Your task to perform on an android device: When is my next appointment? Image 0: 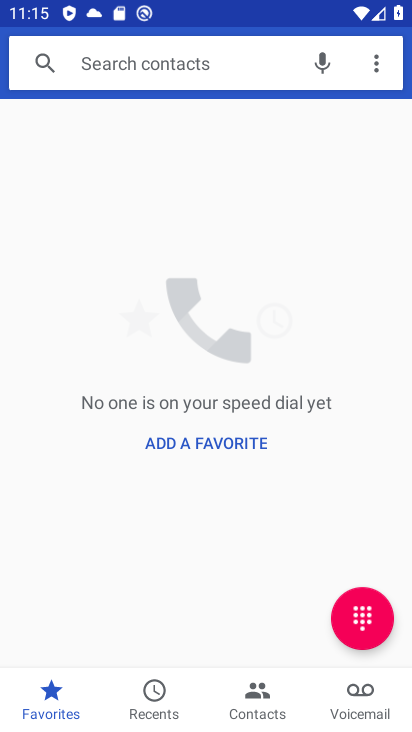
Step 0: drag from (217, 564) to (174, 68)
Your task to perform on an android device: When is my next appointment? Image 1: 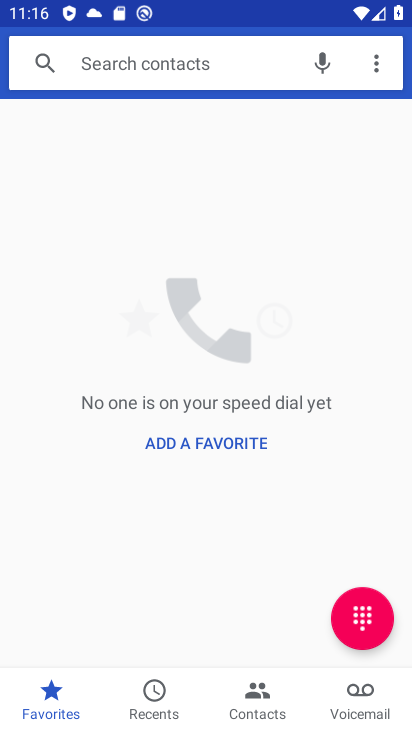
Step 1: press home button
Your task to perform on an android device: When is my next appointment? Image 2: 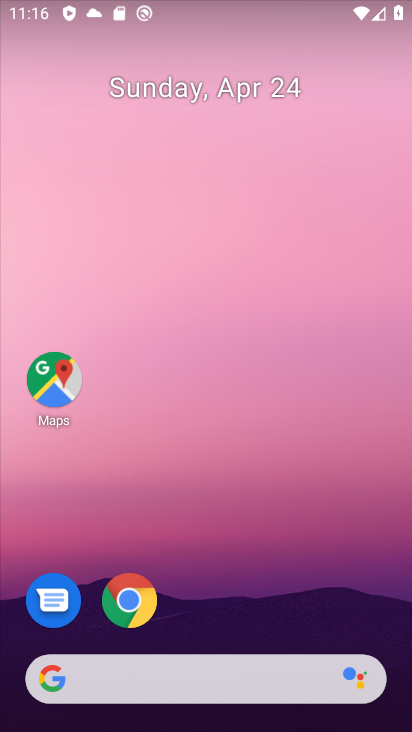
Step 2: drag from (232, 564) to (187, 61)
Your task to perform on an android device: When is my next appointment? Image 3: 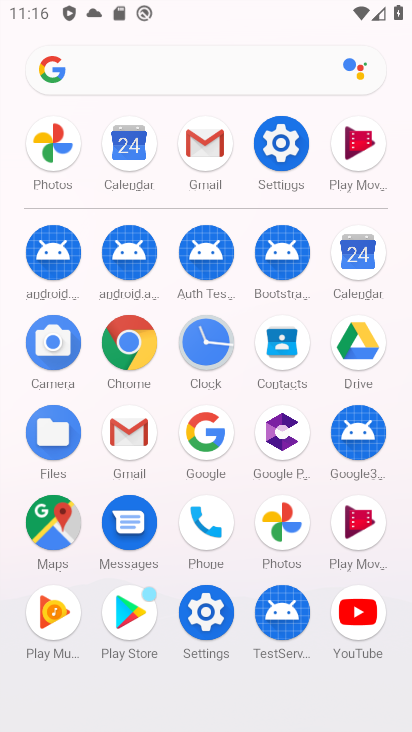
Step 3: click (361, 255)
Your task to perform on an android device: When is my next appointment? Image 4: 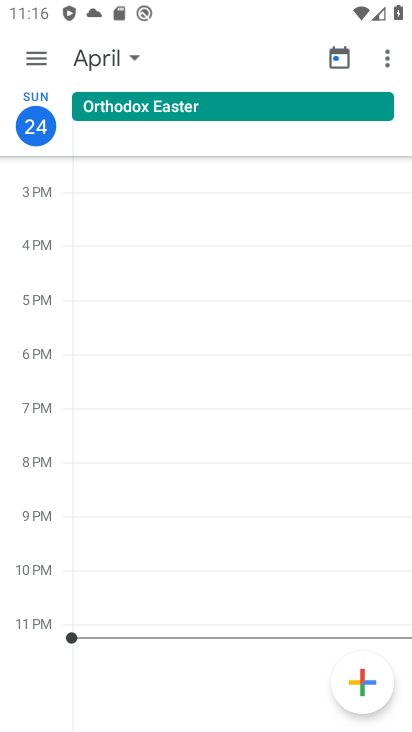
Step 4: drag from (190, 476) to (180, 170)
Your task to perform on an android device: When is my next appointment? Image 5: 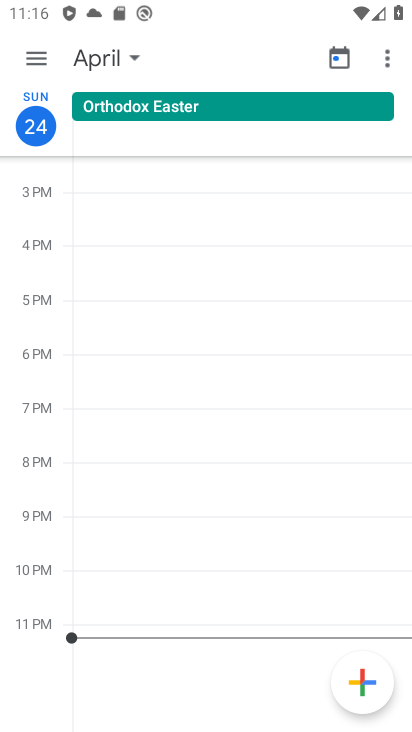
Step 5: click (41, 56)
Your task to perform on an android device: When is my next appointment? Image 6: 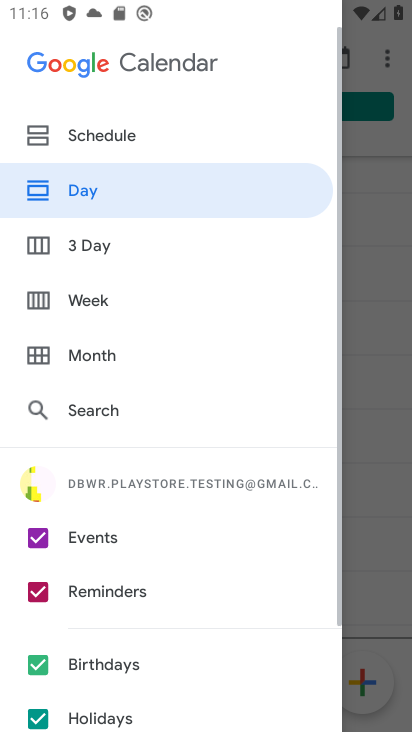
Step 6: task complete